Your task to perform on an android device: Go to Yahoo.com Image 0: 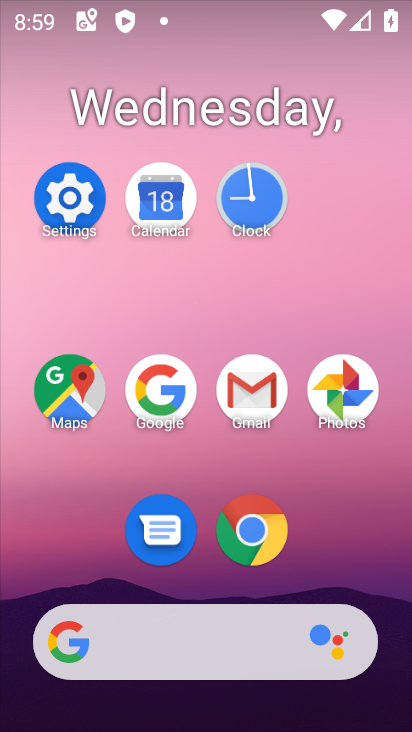
Step 0: click (272, 516)
Your task to perform on an android device: Go to Yahoo.com Image 1: 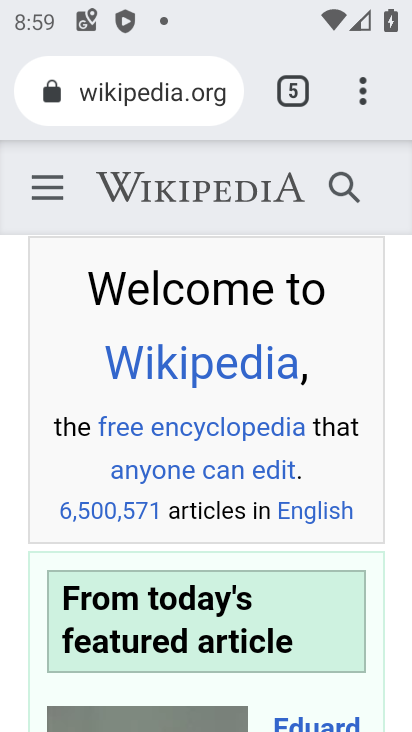
Step 1: click (300, 100)
Your task to perform on an android device: Go to Yahoo.com Image 2: 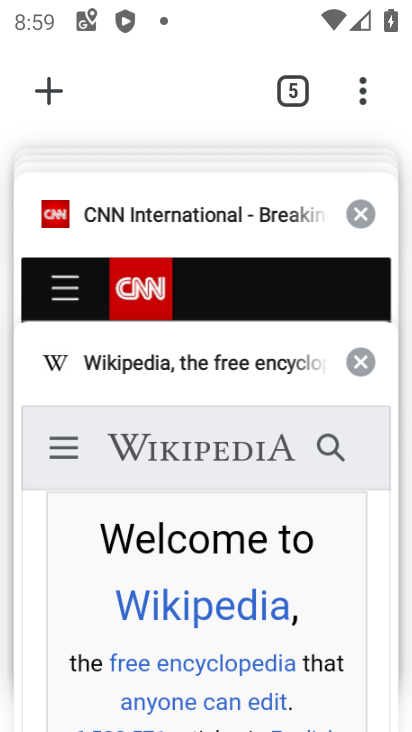
Step 2: drag from (205, 215) to (243, 572)
Your task to perform on an android device: Go to Yahoo.com Image 3: 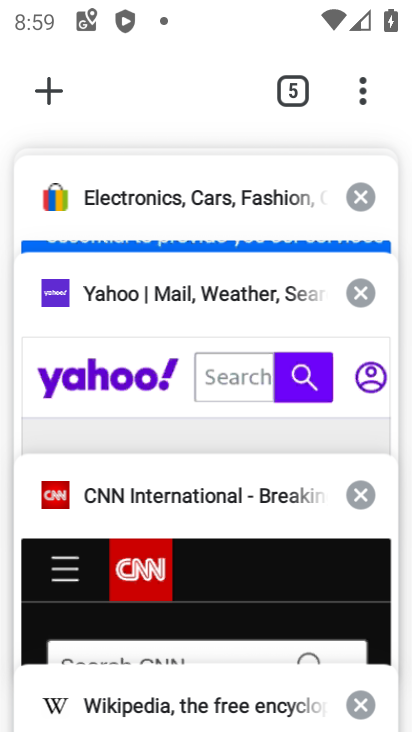
Step 3: click (193, 302)
Your task to perform on an android device: Go to Yahoo.com Image 4: 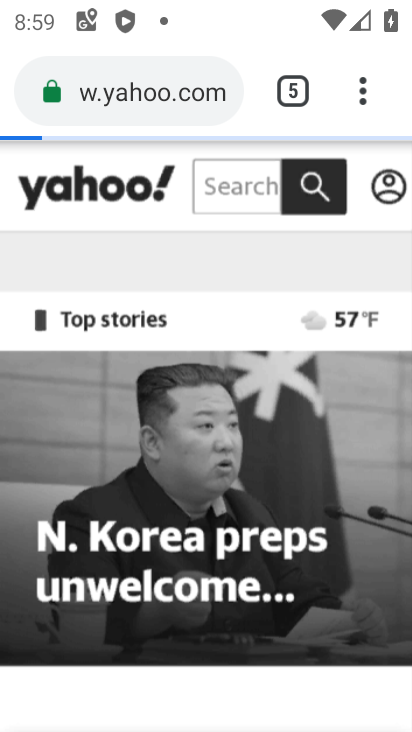
Step 4: task complete